Your task to perform on an android device: Show me popular games on the Play Store Image 0: 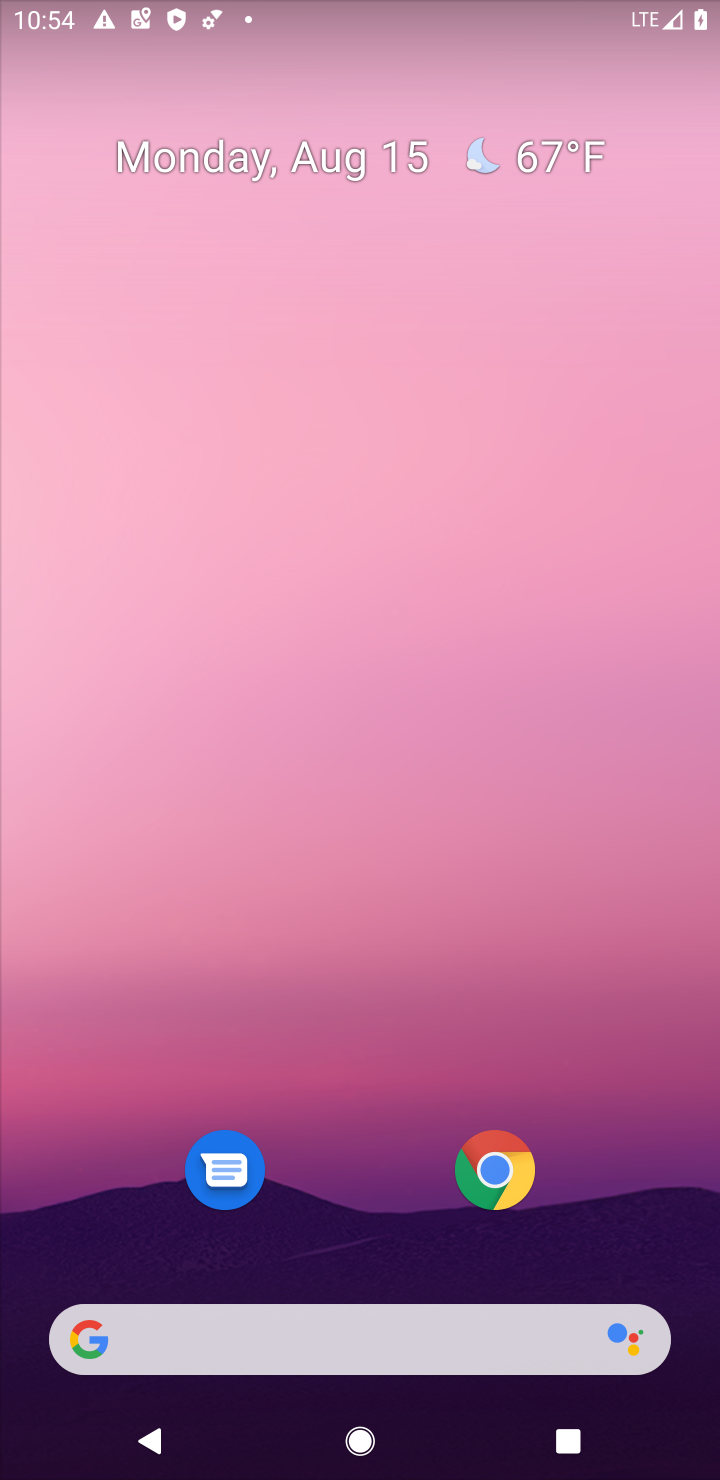
Step 0: press home button
Your task to perform on an android device: Show me popular games on the Play Store Image 1: 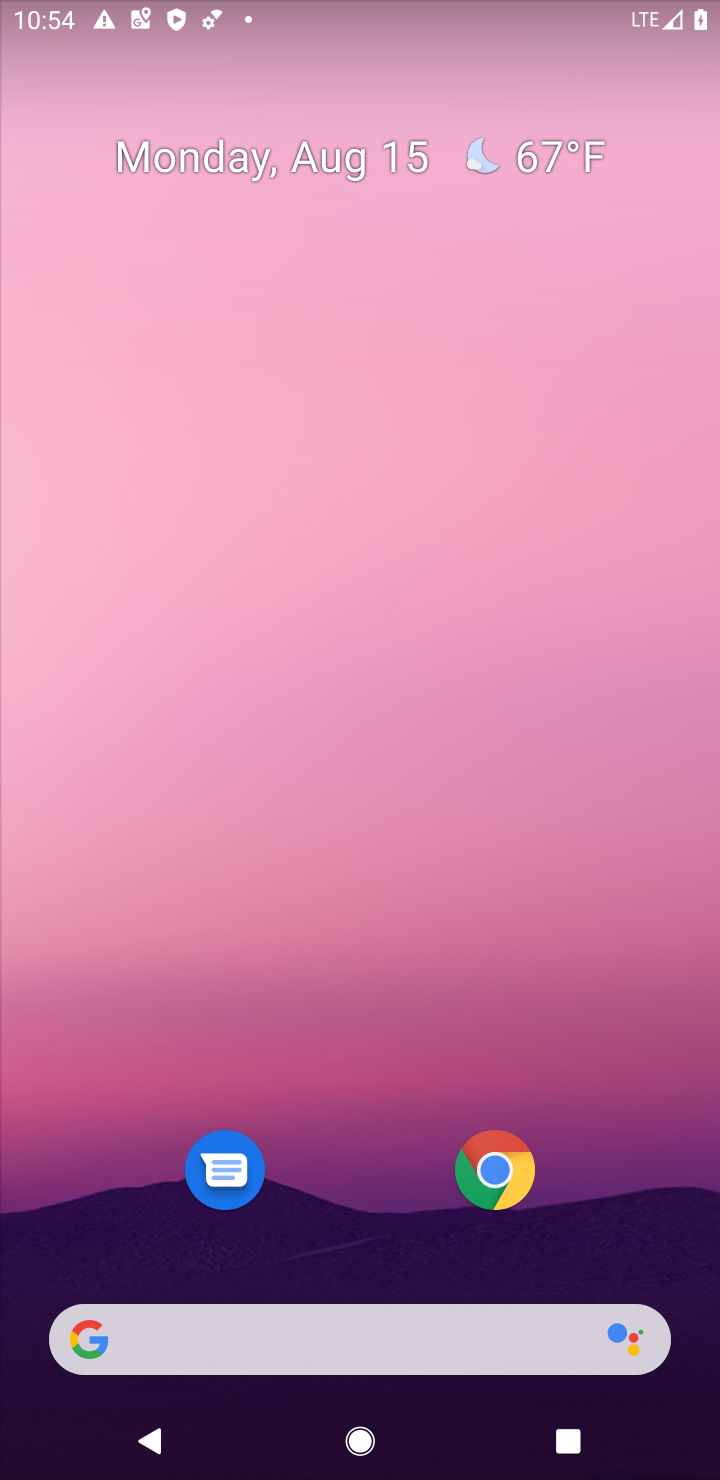
Step 1: drag from (400, 1212) to (430, 182)
Your task to perform on an android device: Show me popular games on the Play Store Image 2: 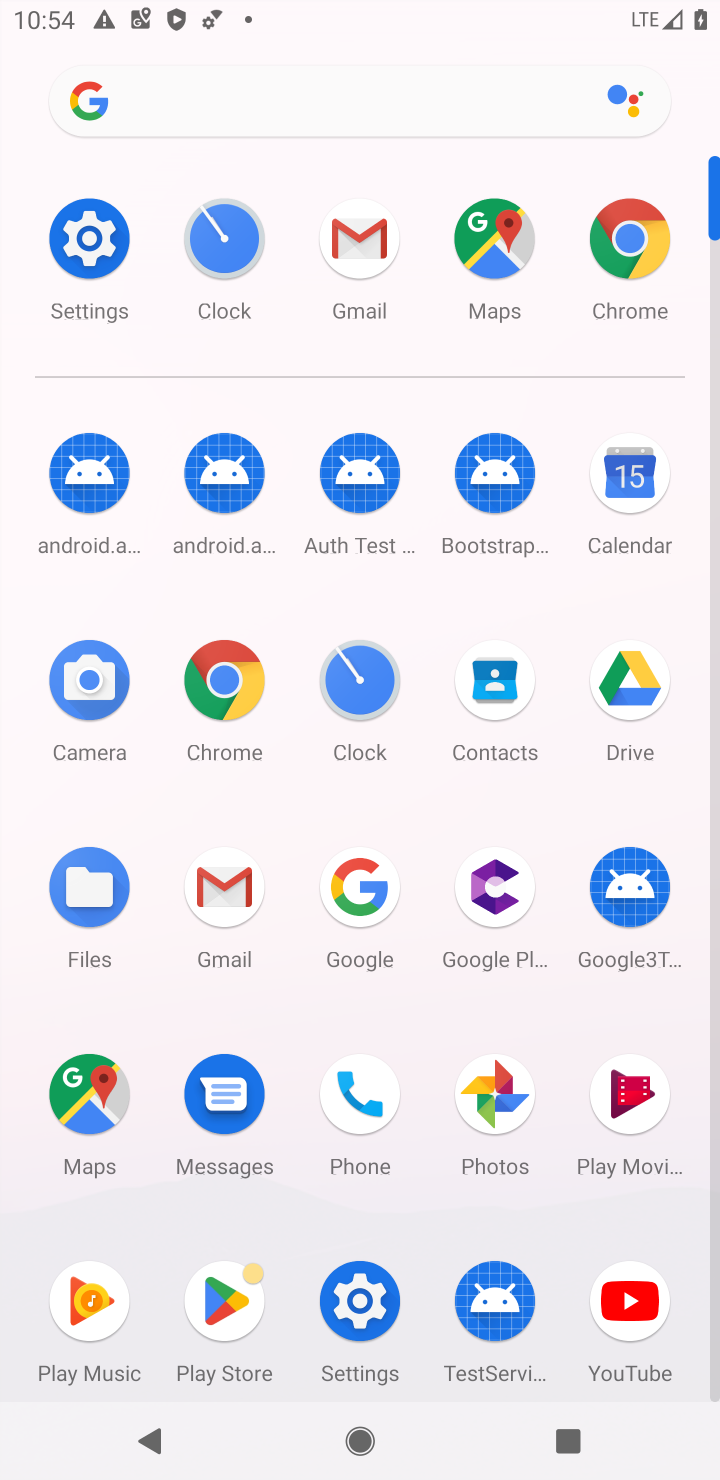
Step 2: click (220, 1287)
Your task to perform on an android device: Show me popular games on the Play Store Image 3: 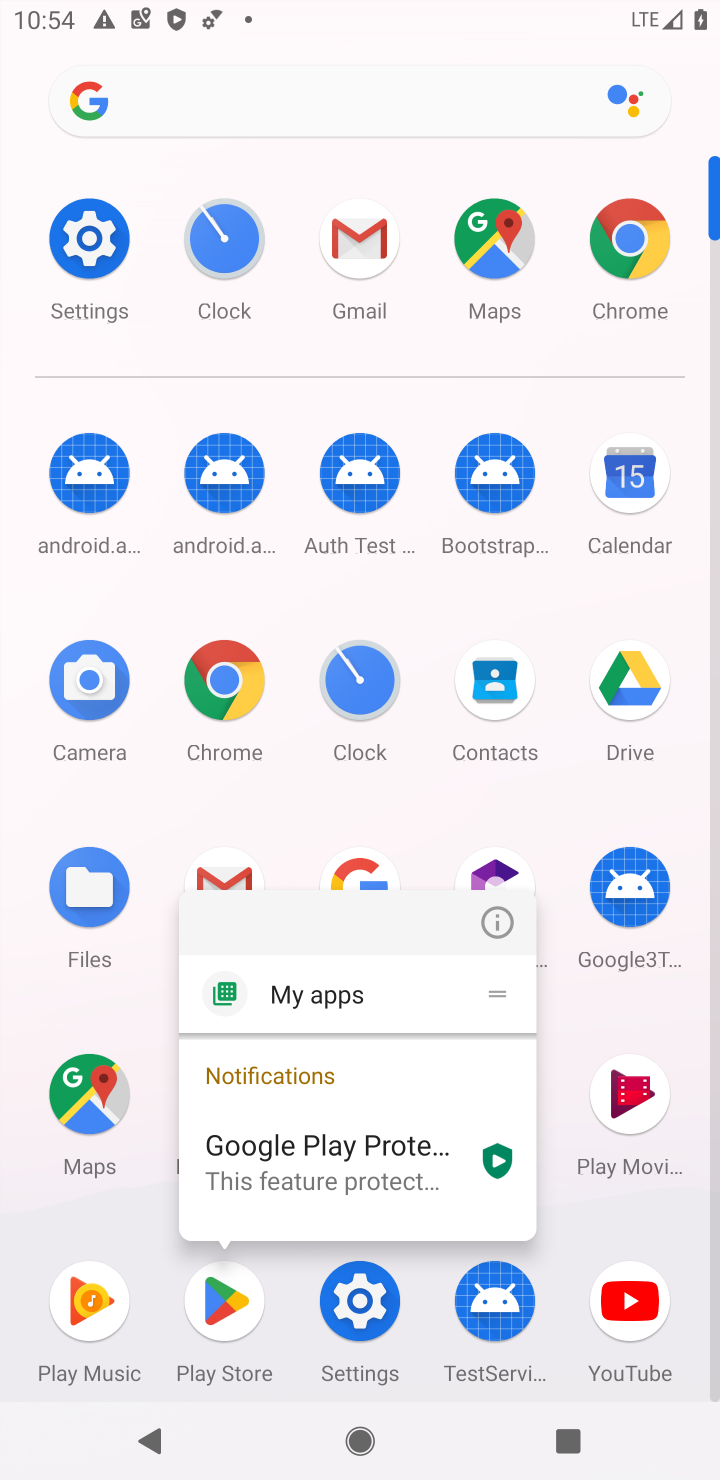
Step 3: click (209, 1287)
Your task to perform on an android device: Show me popular games on the Play Store Image 4: 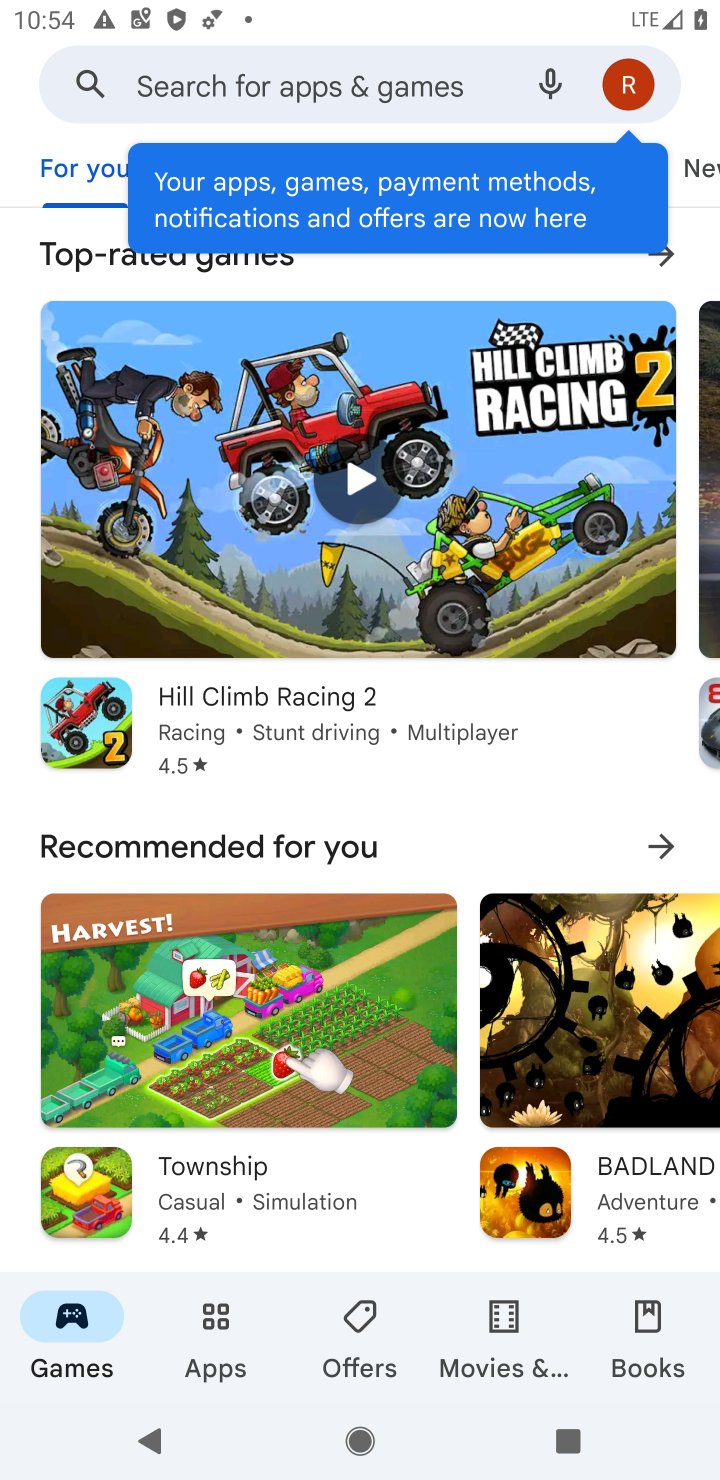
Step 4: task complete